Your task to perform on an android device: make emails show in primary in the gmail app Image 0: 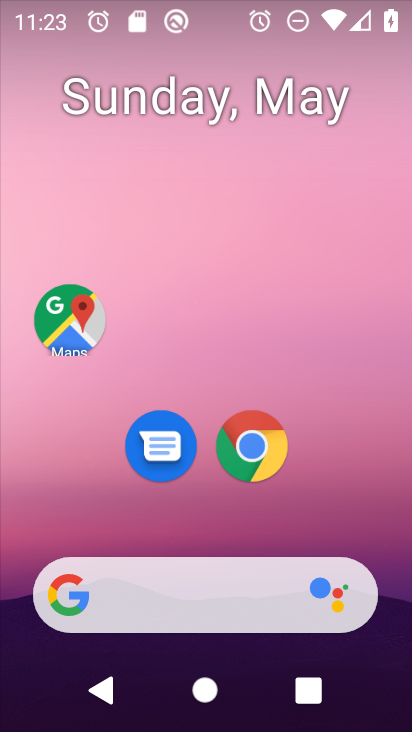
Step 0: drag from (341, 537) to (282, 33)
Your task to perform on an android device: make emails show in primary in the gmail app Image 1: 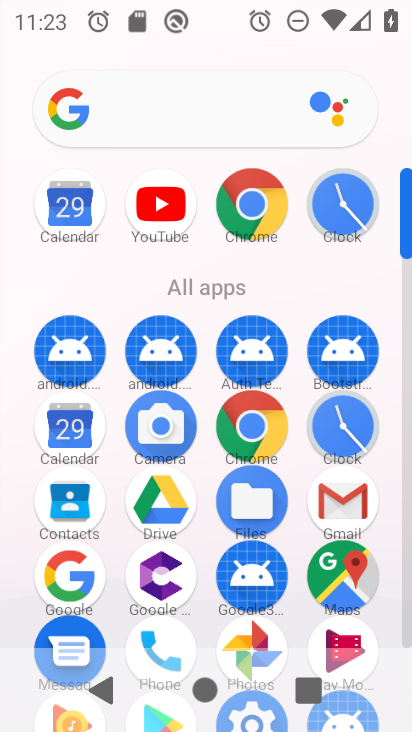
Step 1: drag from (13, 575) to (9, 210)
Your task to perform on an android device: make emails show in primary in the gmail app Image 2: 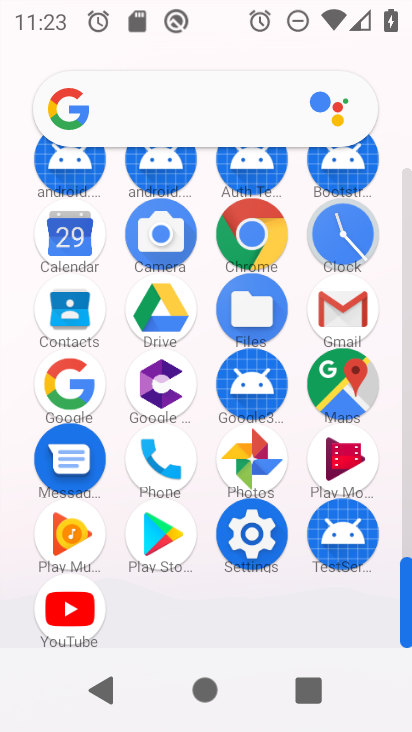
Step 2: click (342, 301)
Your task to perform on an android device: make emails show in primary in the gmail app Image 3: 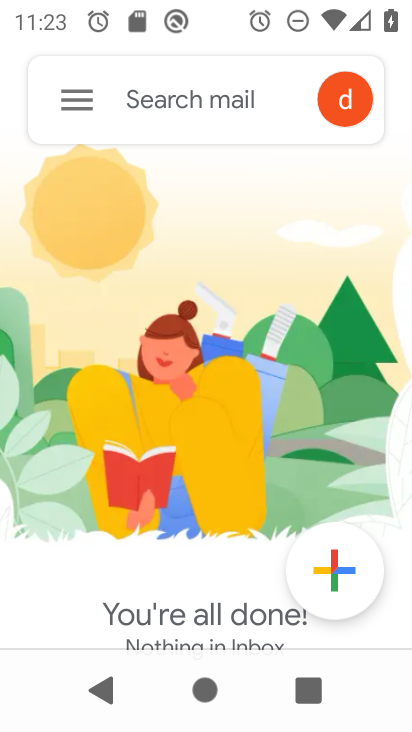
Step 3: click (63, 94)
Your task to perform on an android device: make emails show in primary in the gmail app Image 4: 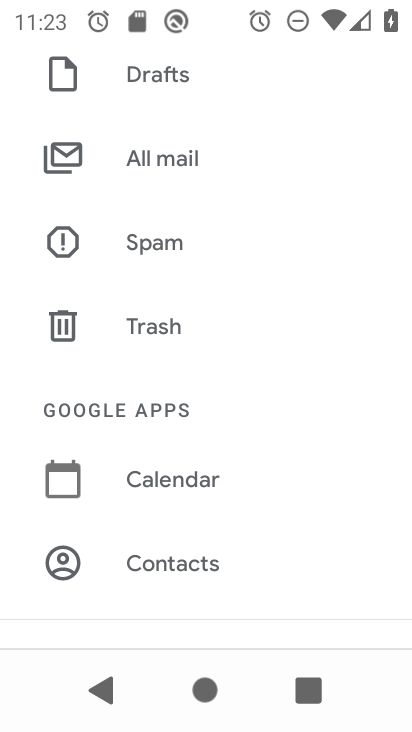
Step 4: drag from (206, 561) to (241, 110)
Your task to perform on an android device: make emails show in primary in the gmail app Image 5: 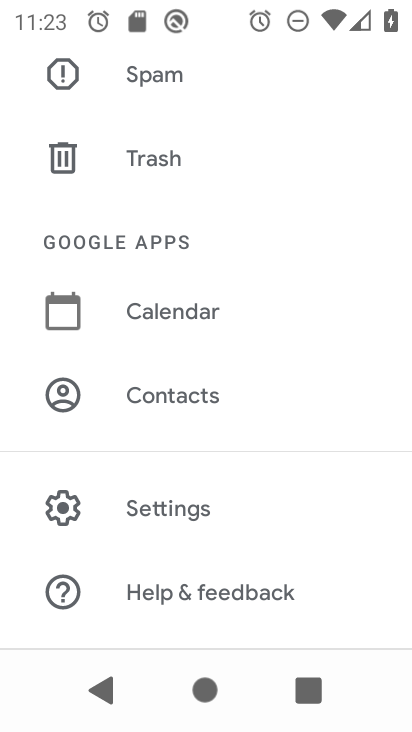
Step 5: click (174, 499)
Your task to perform on an android device: make emails show in primary in the gmail app Image 6: 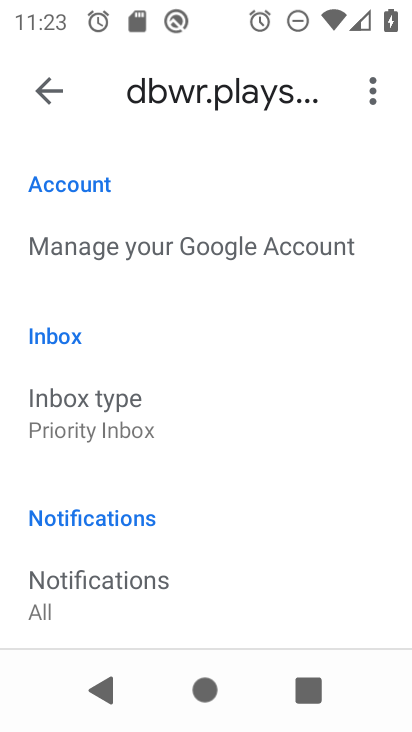
Step 6: drag from (233, 556) to (281, 156)
Your task to perform on an android device: make emails show in primary in the gmail app Image 7: 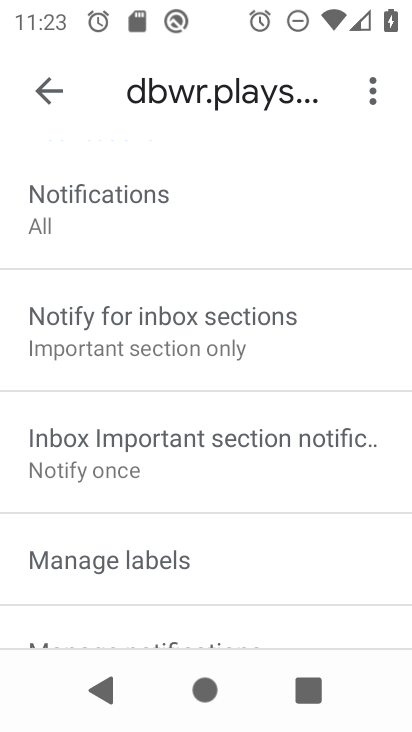
Step 7: drag from (258, 554) to (289, 115)
Your task to perform on an android device: make emails show in primary in the gmail app Image 8: 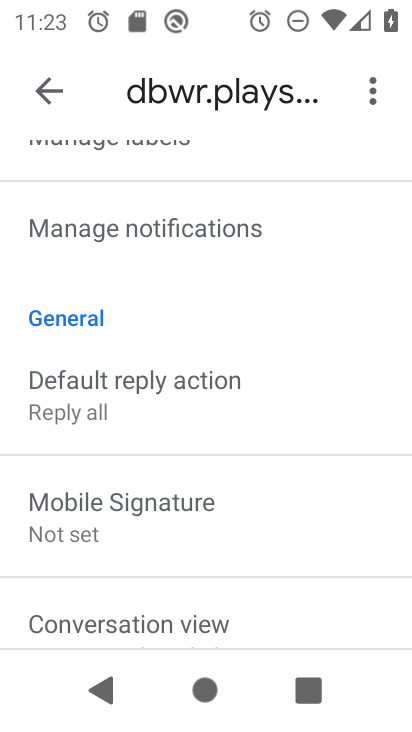
Step 8: drag from (200, 595) to (250, 200)
Your task to perform on an android device: make emails show in primary in the gmail app Image 9: 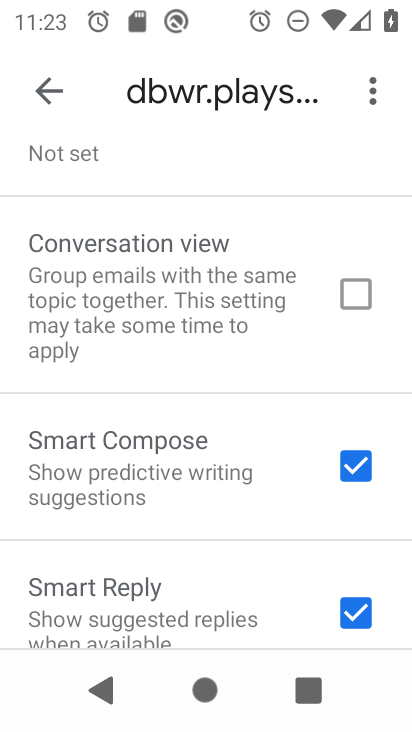
Step 9: drag from (226, 551) to (264, 149)
Your task to perform on an android device: make emails show in primary in the gmail app Image 10: 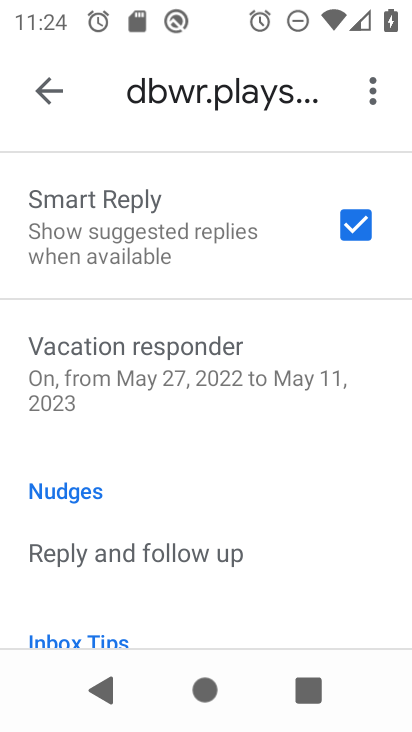
Step 10: drag from (212, 531) to (211, 144)
Your task to perform on an android device: make emails show in primary in the gmail app Image 11: 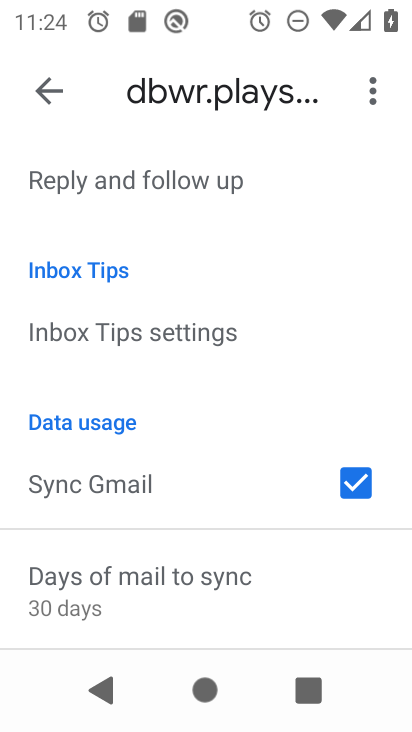
Step 11: drag from (184, 524) to (217, 165)
Your task to perform on an android device: make emails show in primary in the gmail app Image 12: 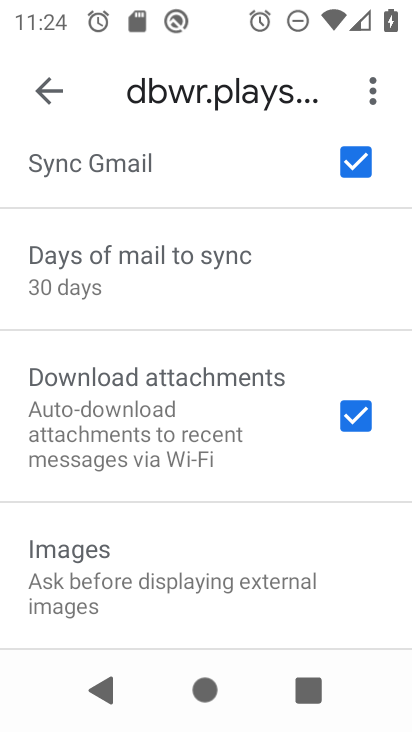
Step 12: drag from (214, 522) to (232, 132)
Your task to perform on an android device: make emails show in primary in the gmail app Image 13: 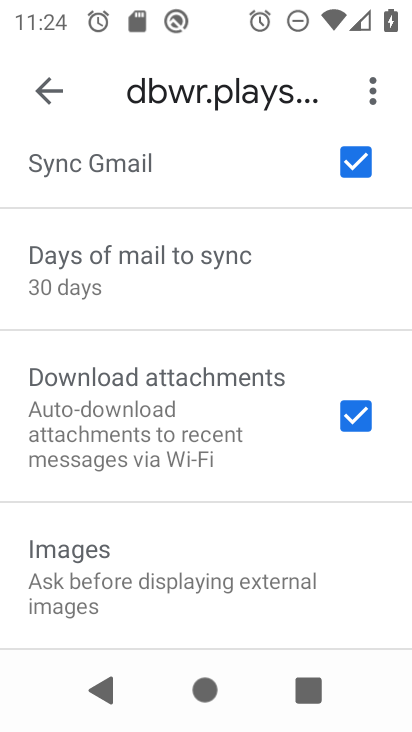
Step 13: drag from (214, 525) to (222, 204)
Your task to perform on an android device: make emails show in primary in the gmail app Image 14: 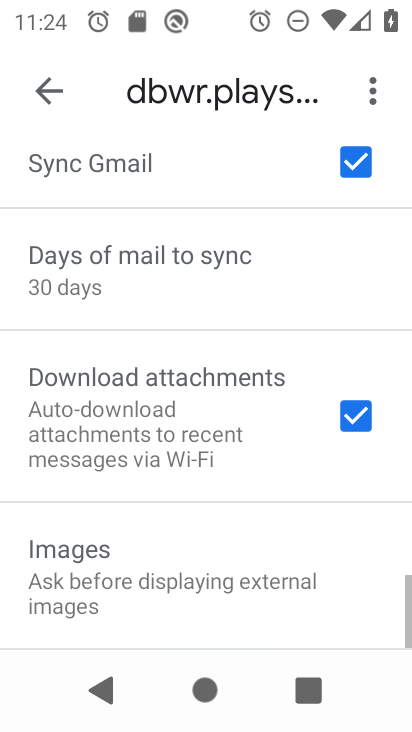
Step 14: drag from (220, 198) to (220, 582)
Your task to perform on an android device: make emails show in primary in the gmail app Image 15: 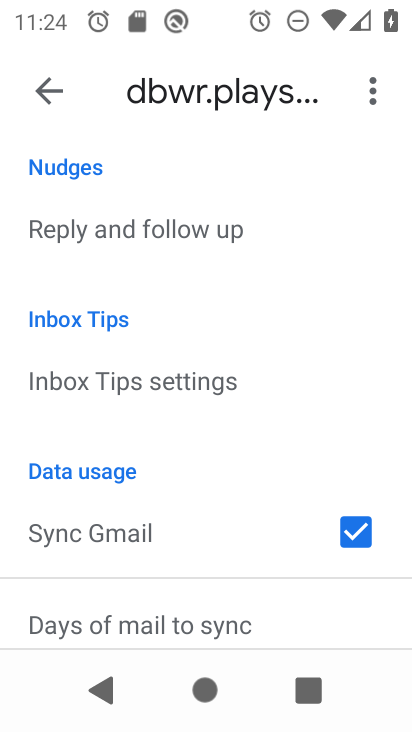
Step 15: drag from (244, 177) to (244, 590)
Your task to perform on an android device: make emails show in primary in the gmail app Image 16: 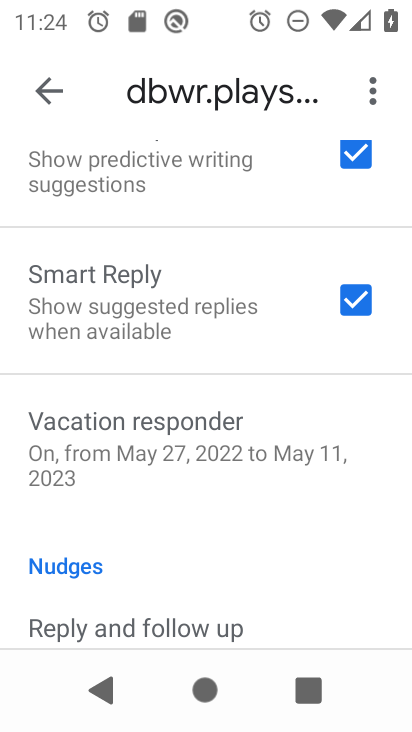
Step 16: drag from (225, 166) to (220, 523)
Your task to perform on an android device: make emails show in primary in the gmail app Image 17: 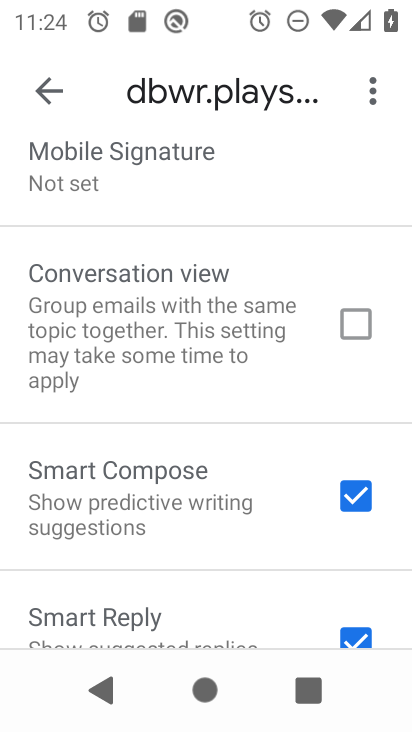
Step 17: drag from (230, 542) to (233, 161)
Your task to perform on an android device: make emails show in primary in the gmail app Image 18: 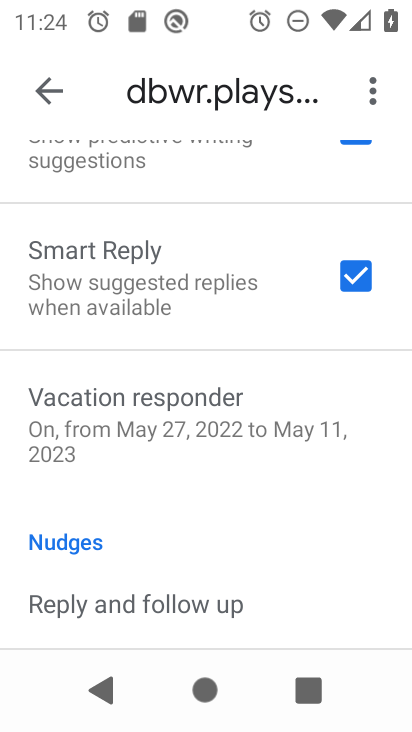
Step 18: drag from (206, 564) to (212, 185)
Your task to perform on an android device: make emails show in primary in the gmail app Image 19: 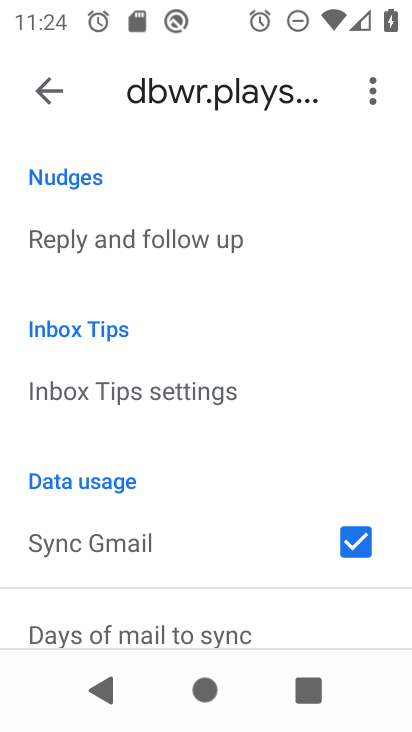
Step 19: drag from (223, 607) to (230, 167)
Your task to perform on an android device: make emails show in primary in the gmail app Image 20: 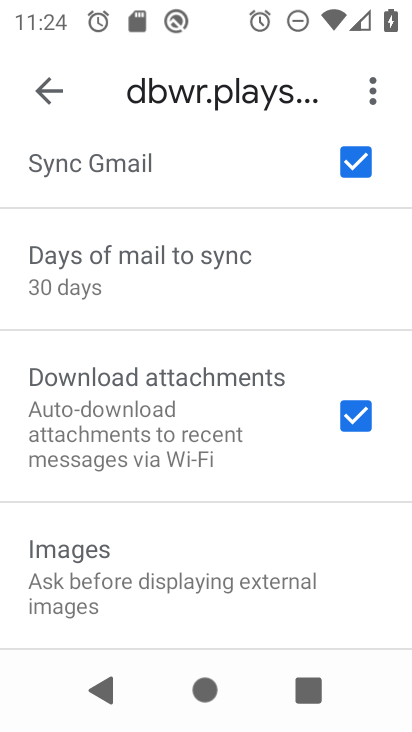
Step 20: drag from (204, 561) to (223, 177)
Your task to perform on an android device: make emails show in primary in the gmail app Image 21: 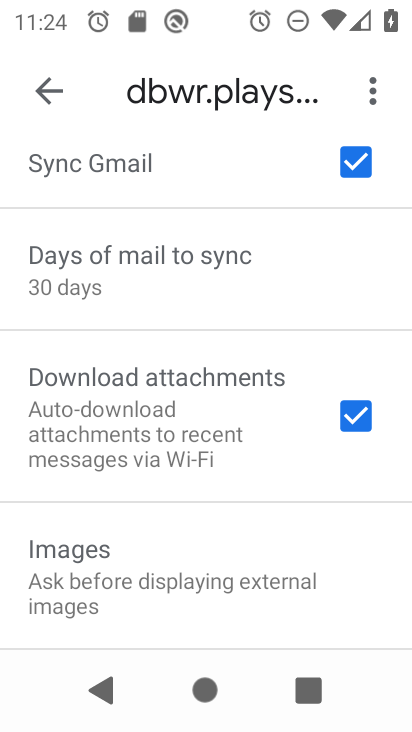
Step 21: drag from (225, 180) to (235, 635)
Your task to perform on an android device: make emails show in primary in the gmail app Image 22: 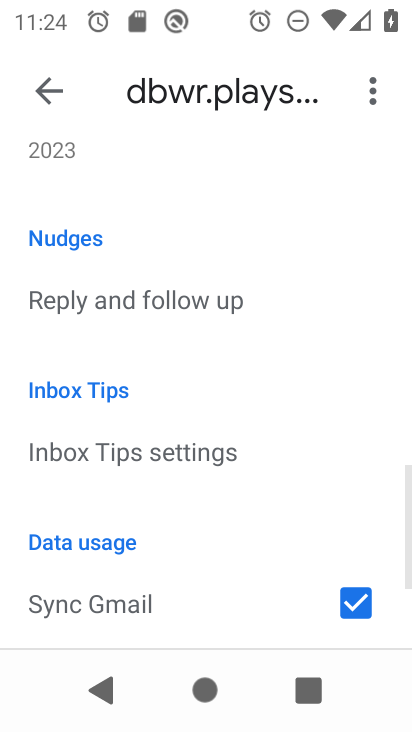
Step 22: drag from (217, 221) to (214, 613)
Your task to perform on an android device: make emails show in primary in the gmail app Image 23: 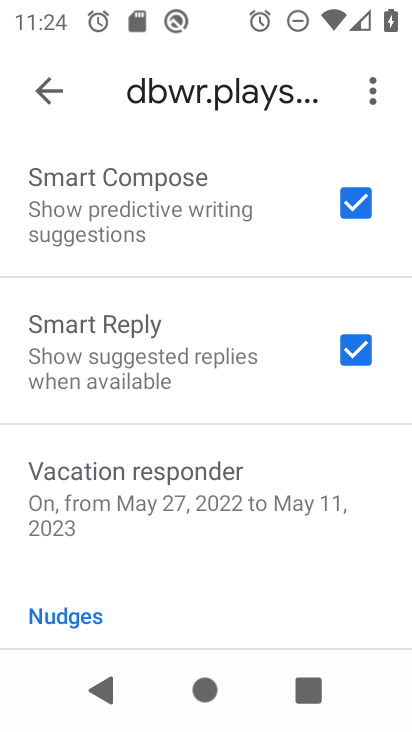
Step 23: drag from (231, 195) to (234, 574)
Your task to perform on an android device: make emails show in primary in the gmail app Image 24: 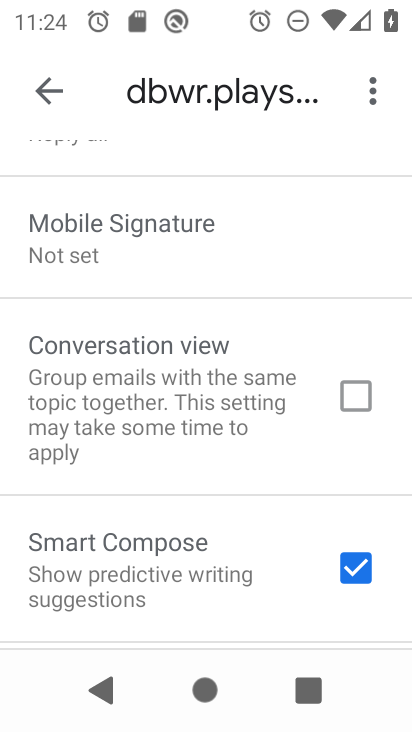
Step 24: drag from (205, 198) to (202, 579)
Your task to perform on an android device: make emails show in primary in the gmail app Image 25: 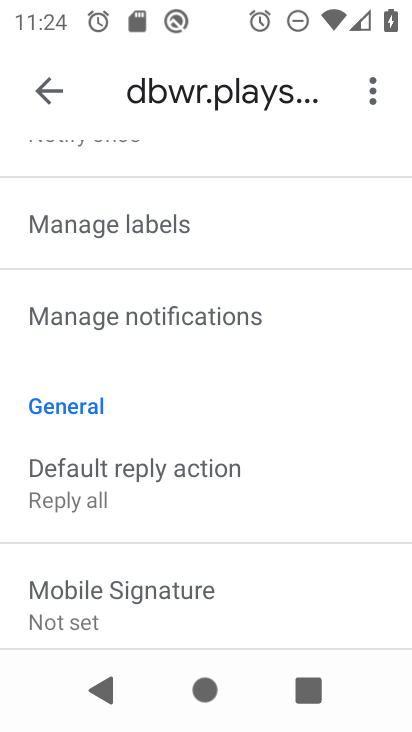
Step 25: drag from (239, 227) to (196, 621)
Your task to perform on an android device: make emails show in primary in the gmail app Image 26: 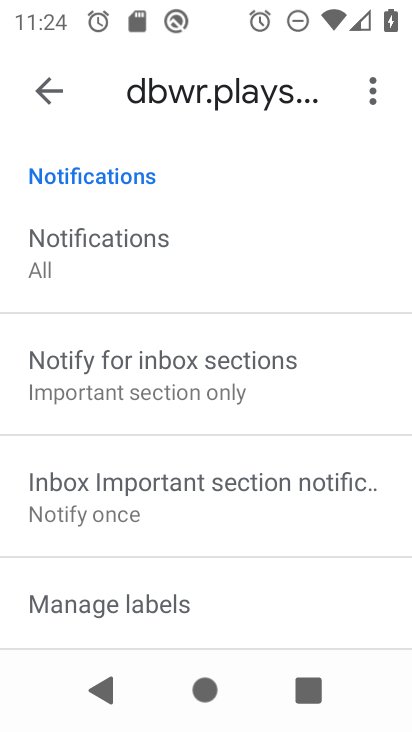
Step 26: drag from (206, 369) to (207, 625)
Your task to perform on an android device: make emails show in primary in the gmail app Image 27: 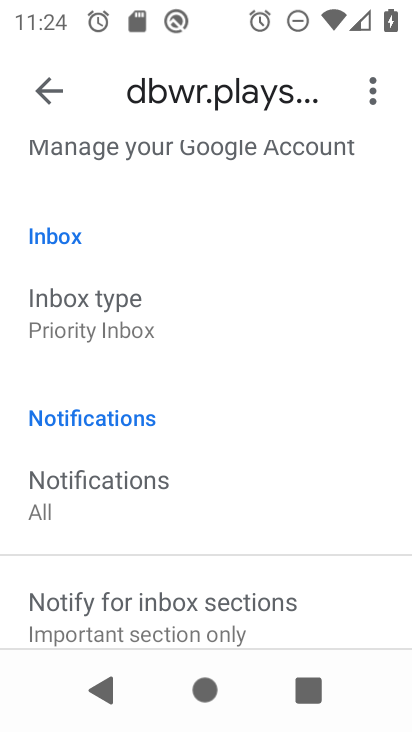
Step 27: click (177, 322)
Your task to perform on an android device: make emails show in primary in the gmail app Image 28: 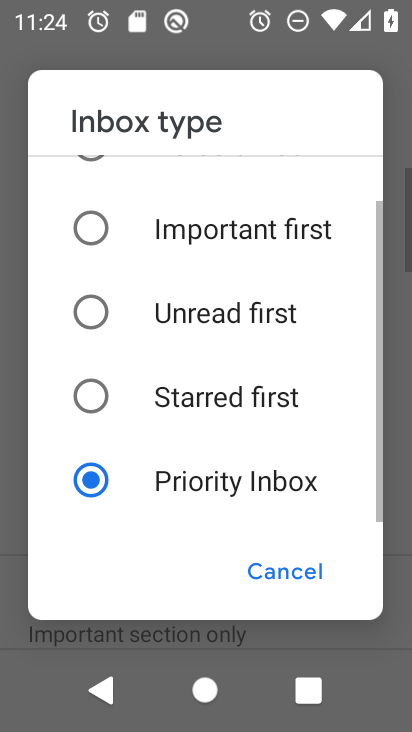
Step 28: drag from (235, 168) to (239, 537)
Your task to perform on an android device: make emails show in primary in the gmail app Image 29: 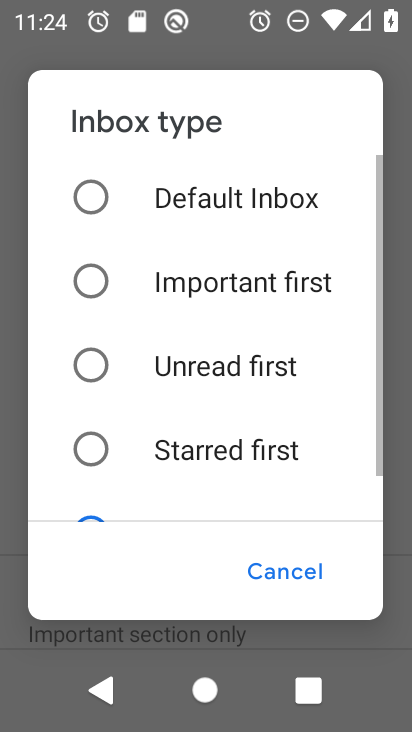
Step 29: click (193, 189)
Your task to perform on an android device: make emails show in primary in the gmail app Image 30: 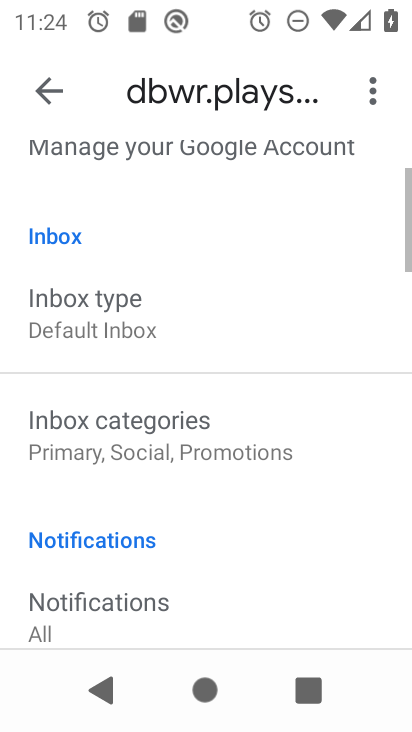
Step 30: click (166, 447)
Your task to perform on an android device: make emails show in primary in the gmail app Image 31: 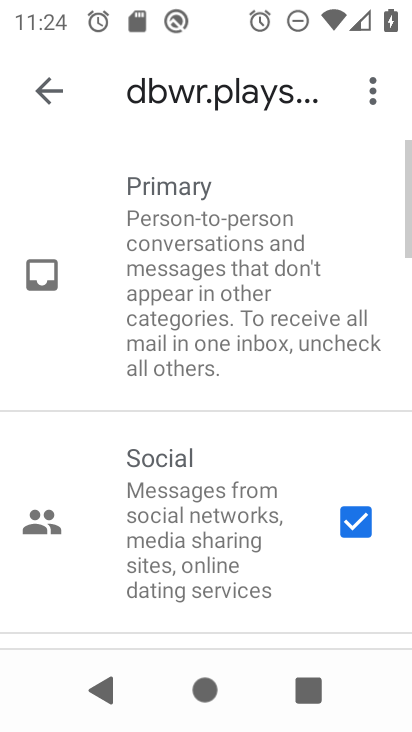
Step 31: click (354, 523)
Your task to perform on an android device: make emails show in primary in the gmail app Image 32: 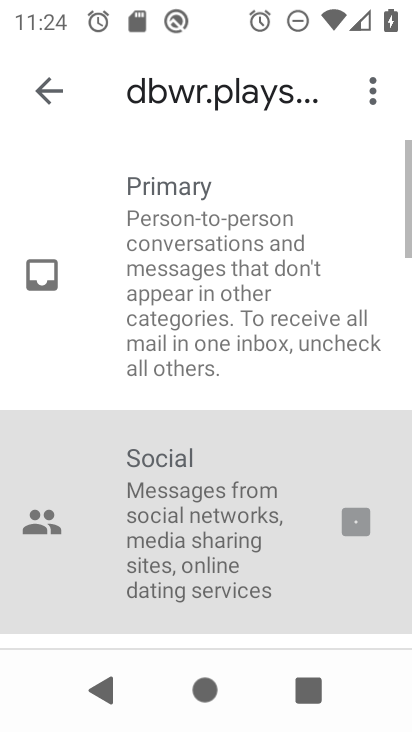
Step 32: drag from (258, 426) to (257, 225)
Your task to perform on an android device: make emails show in primary in the gmail app Image 33: 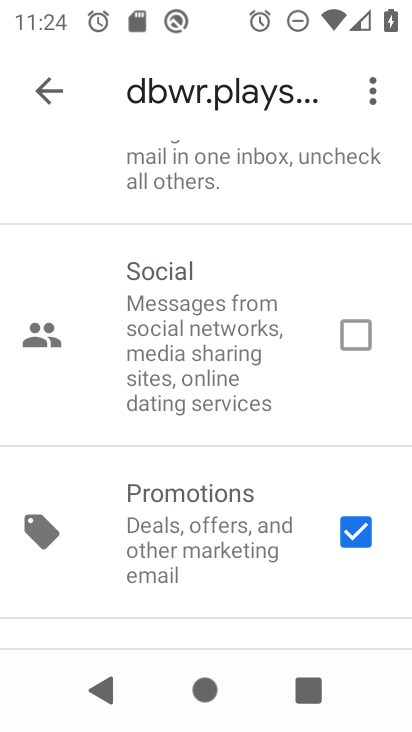
Step 33: click (355, 537)
Your task to perform on an android device: make emails show in primary in the gmail app Image 34: 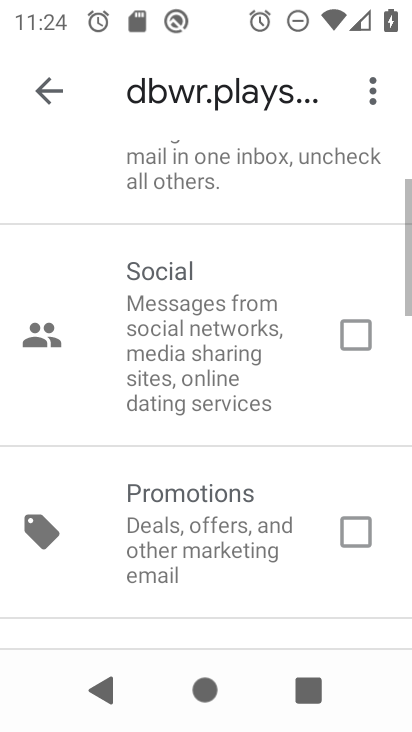
Step 34: click (63, 92)
Your task to perform on an android device: make emails show in primary in the gmail app Image 35: 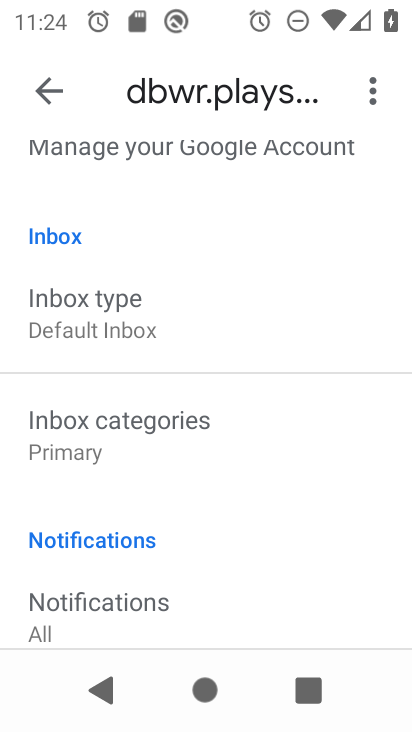
Step 35: task complete